Your task to perform on an android device: star an email in the gmail app Image 0: 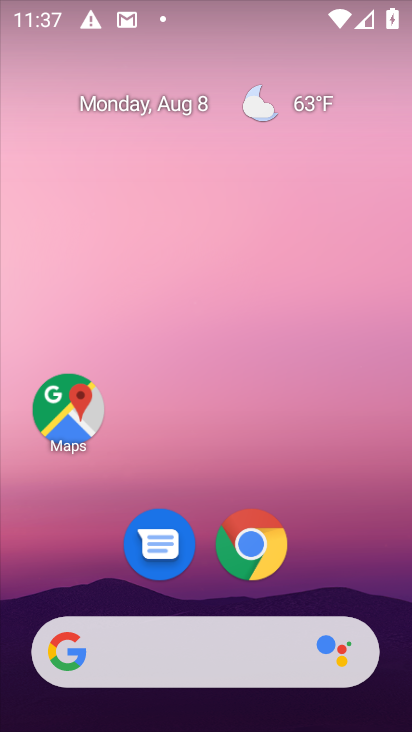
Step 0: drag from (196, 639) to (271, 254)
Your task to perform on an android device: star an email in the gmail app Image 1: 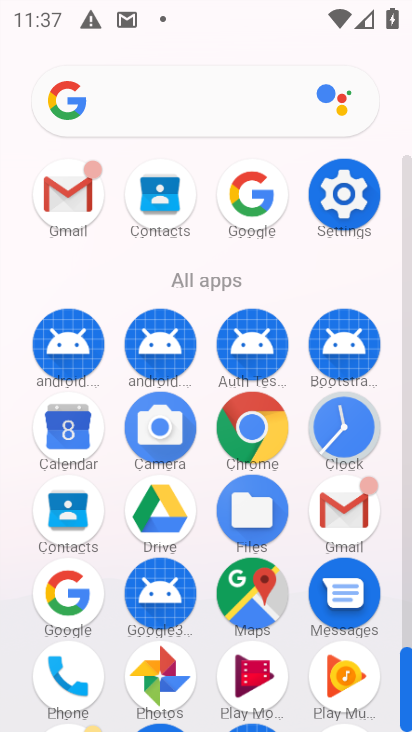
Step 1: click (68, 193)
Your task to perform on an android device: star an email in the gmail app Image 2: 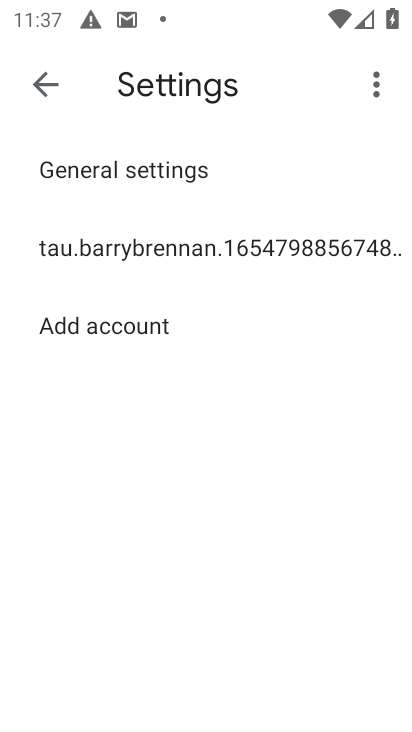
Step 2: press back button
Your task to perform on an android device: star an email in the gmail app Image 3: 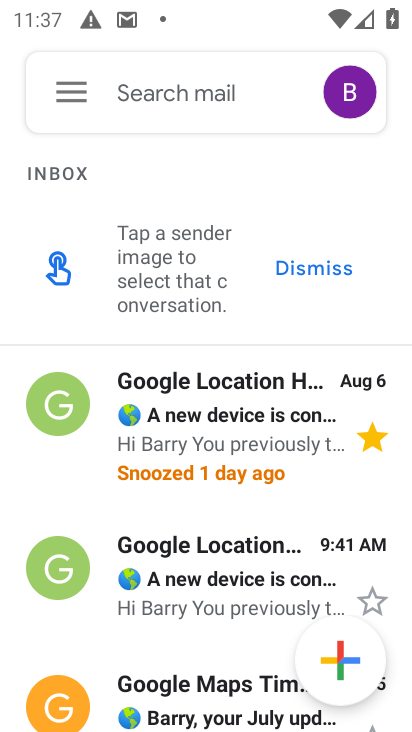
Step 3: click (376, 599)
Your task to perform on an android device: star an email in the gmail app Image 4: 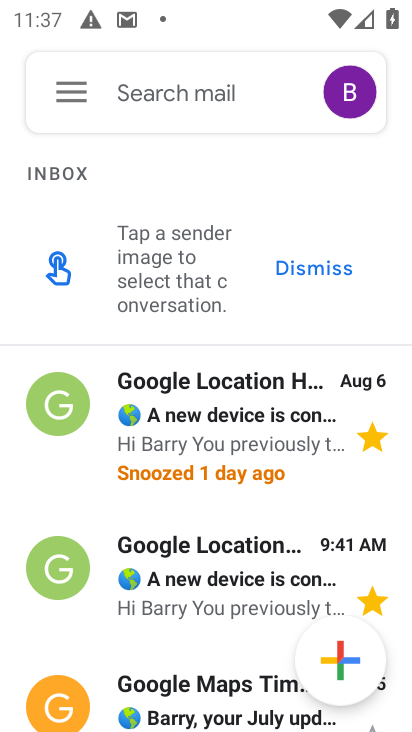
Step 4: task complete